Your task to perform on an android device: empty trash in google photos Image 0: 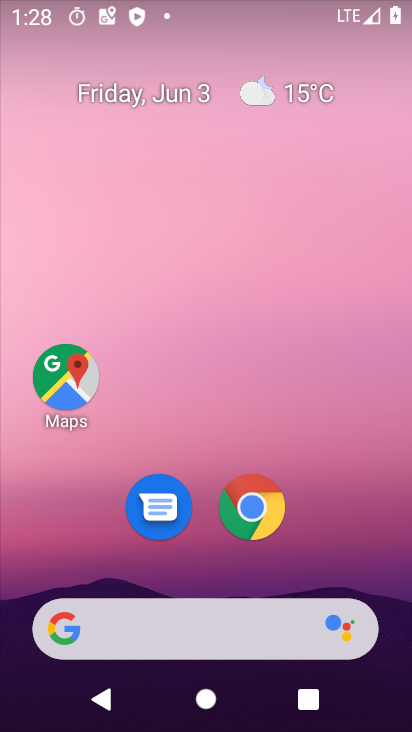
Step 0: drag from (378, 628) to (262, 11)
Your task to perform on an android device: empty trash in google photos Image 1: 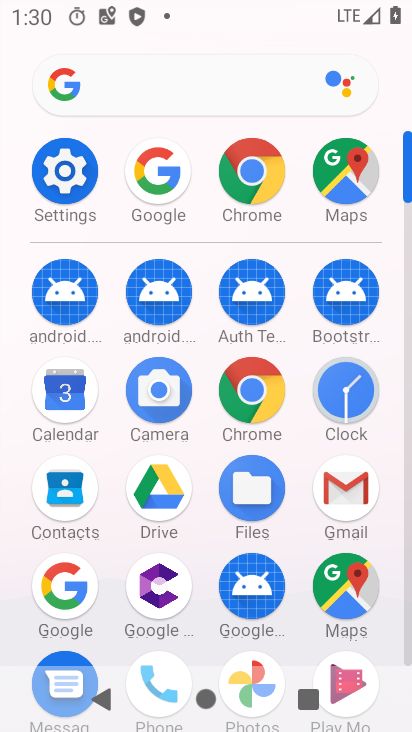
Step 1: click (238, 662)
Your task to perform on an android device: empty trash in google photos Image 2: 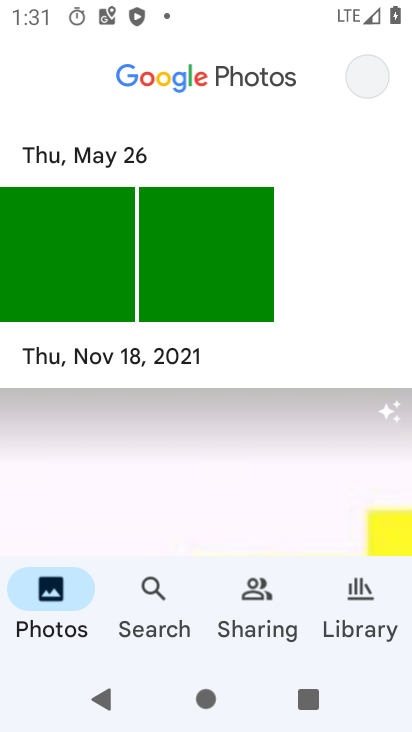
Step 2: click (368, 618)
Your task to perform on an android device: empty trash in google photos Image 3: 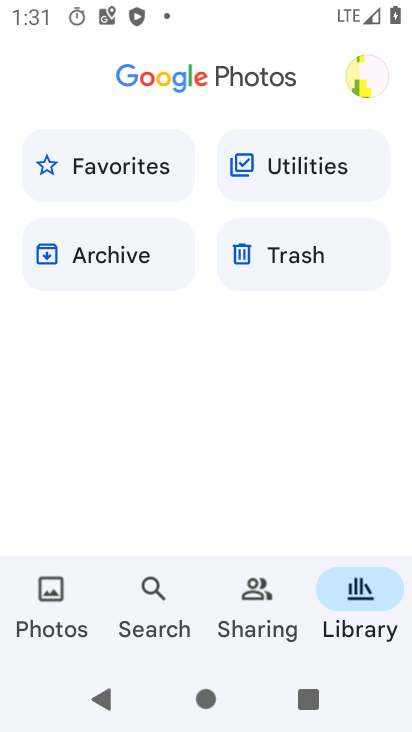
Step 3: click (294, 266)
Your task to perform on an android device: empty trash in google photos Image 4: 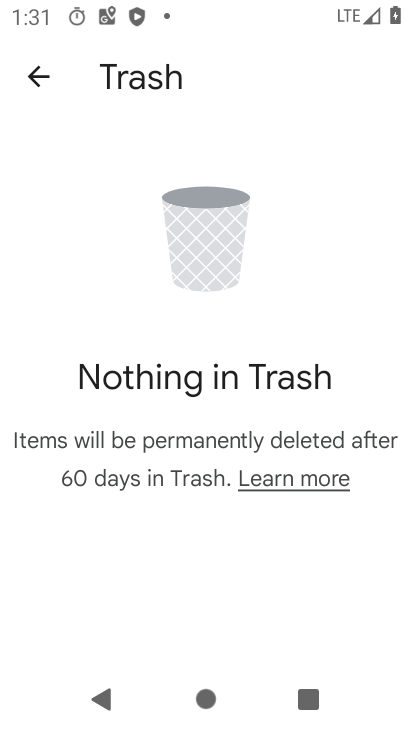
Step 4: task complete